Your task to perform on an android device: check android version Image 0: 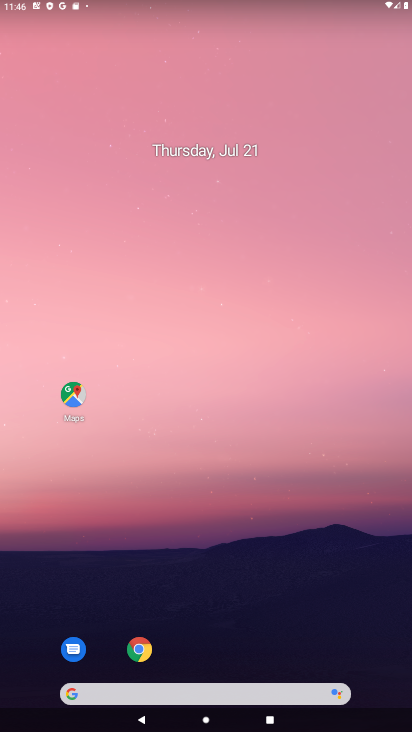
Step 0: drag from (240, 719) to (242, 109)
Your task to perform on an android device: check android version Image 1: 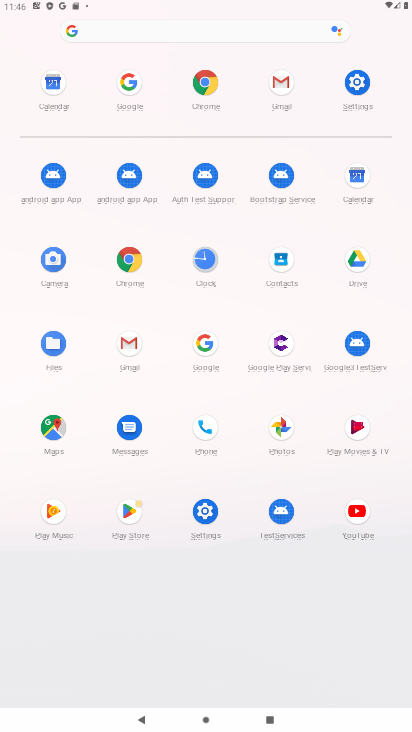
Step 1: click (361, 88)
Your task to perform on an android device: check android version Image 2: 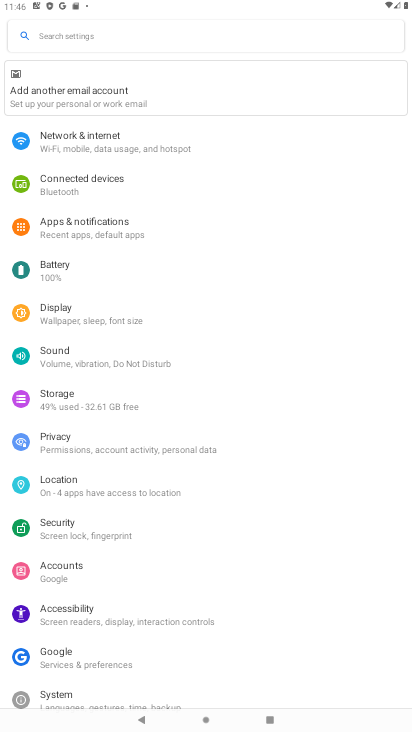
Step 2: drag from (125, 662) to (125, 267)
Your task to perform on an android device: check android version Image 3: 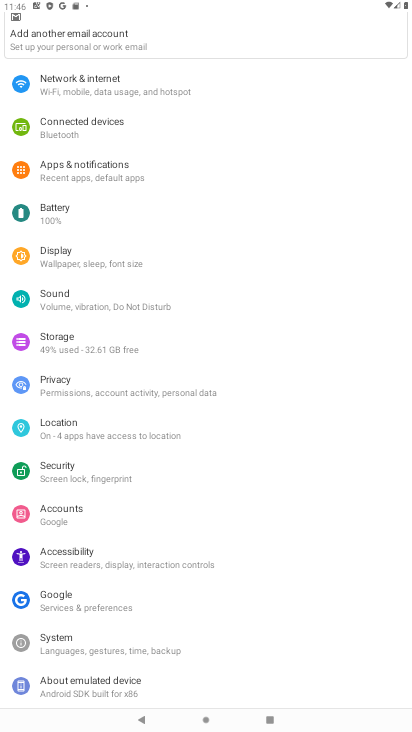
Step 3: click (123, 688)
Your task to perform on an android device: check android version Image 4: 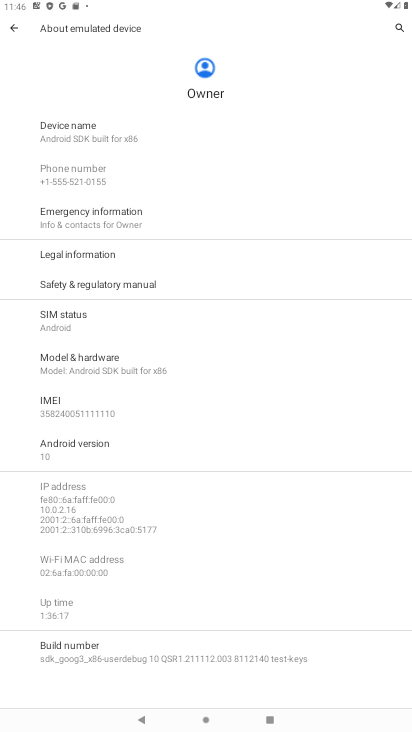
Step 4: click (61, 447)
Your task to perform on an android device: check android version Image 5: 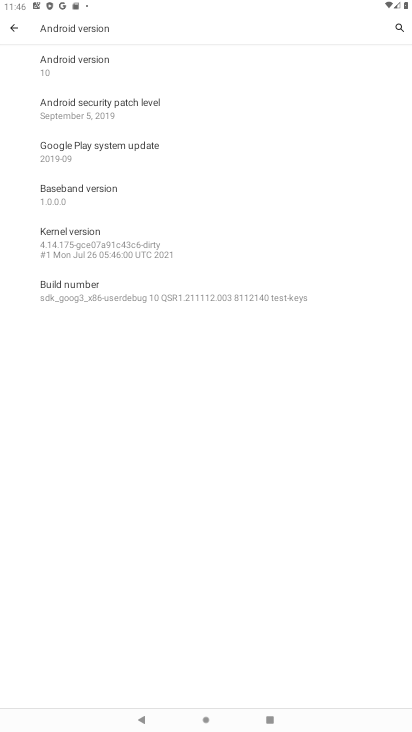
Step 5: task complete